Your task to perform on an android device: turn on data saver in the chrome app Image 0: 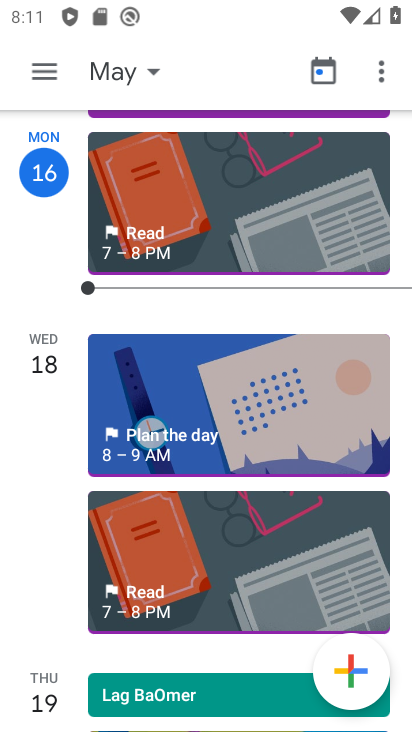
Step 0: press home button
Your task to perform on an android device: turn on data saver in the chrome app Image 1: 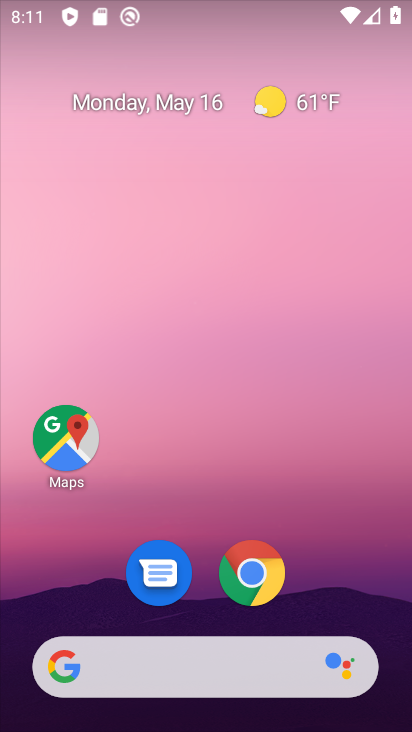
Step 1: click (258, 573)
Your task to perform on an android device: turn on data saver in the chrome app Image 2: 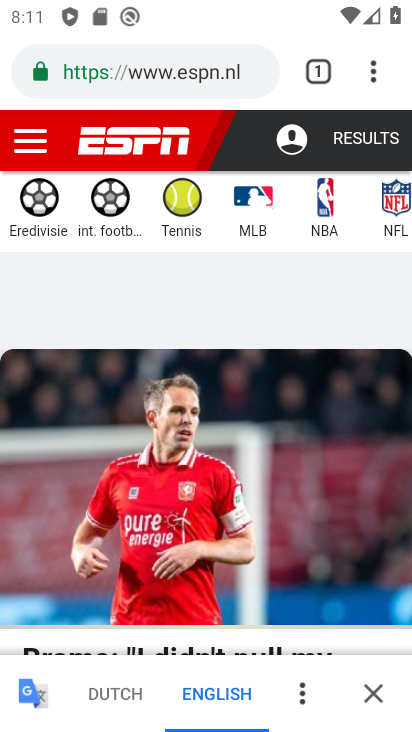
Step 2: click (375, 82)
Your task to perform on an android device: turn on data saver in the chrome app Image 3: 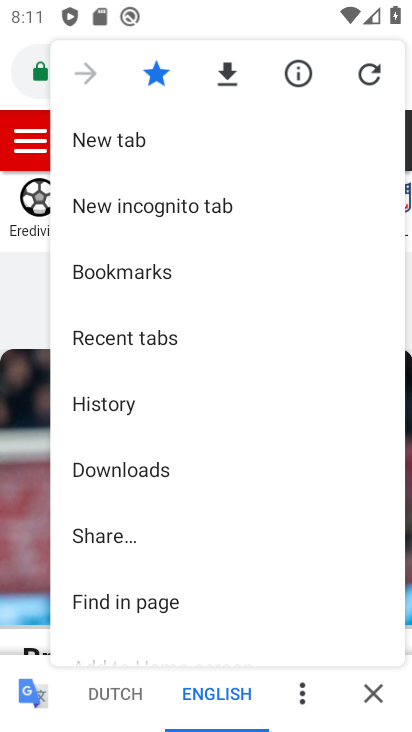
Step 3: drag from (137, 621) to (177, 313)
Your task to perform on an android device: turn on data saver in the chrome app Image 4: 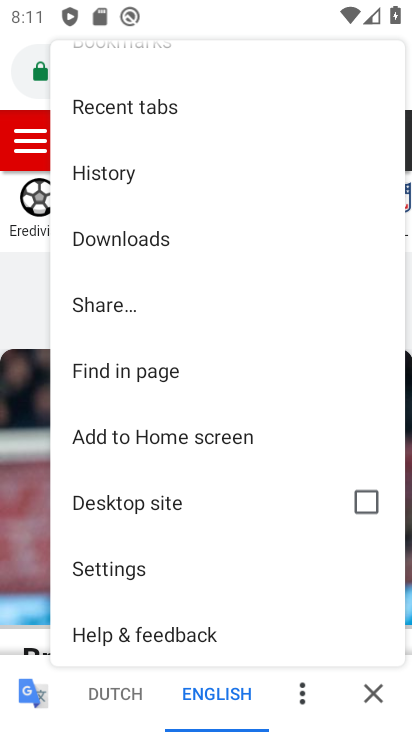
Step 4: click (129, 564)
Your task to perform on an android device: turn on data saver in the chrome app Image 5: 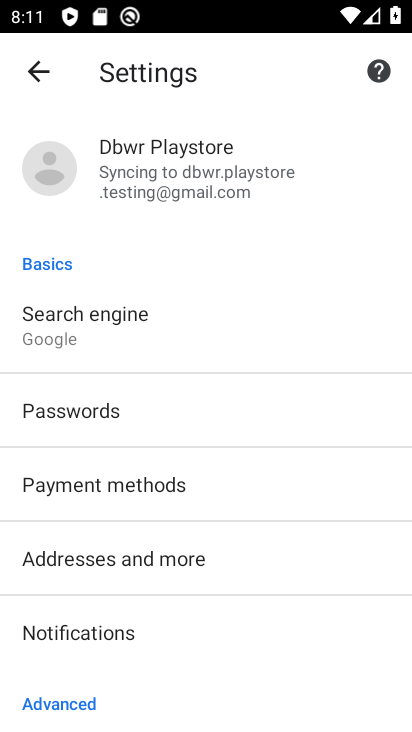
Step 5: drag from (133, 659) to (136, 319)
Your task to perform on an android device: turn on data saver in the chrome app Image 6: 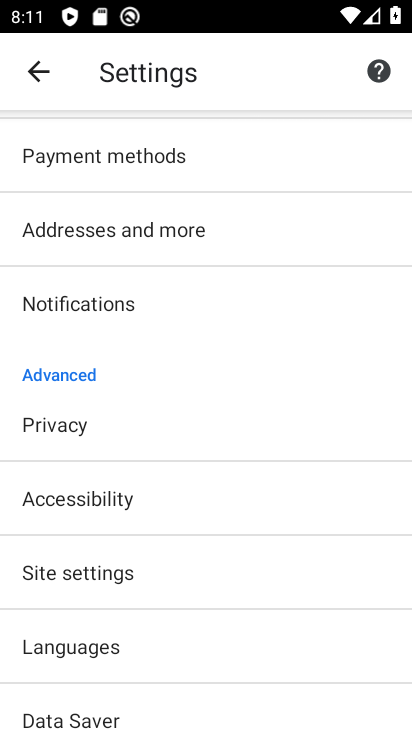
Step 6: click (85, 711)
Your task to perform on an android device: turn on data saver in the chrome app Image 7: 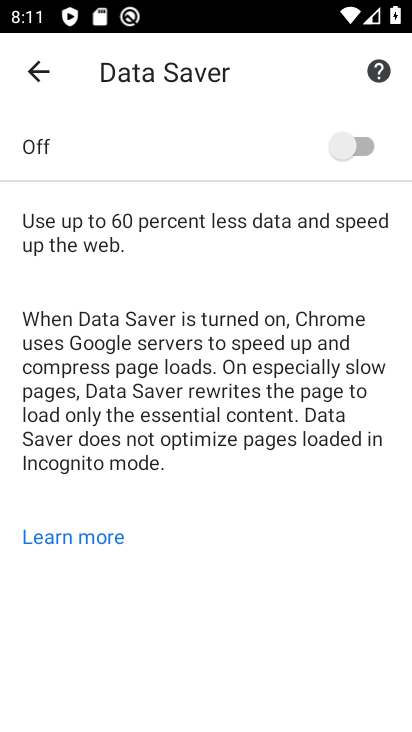
Step 7: click (379, 172)
Your task to perform on an android device: turn on data saver in the chrome app Image 8: 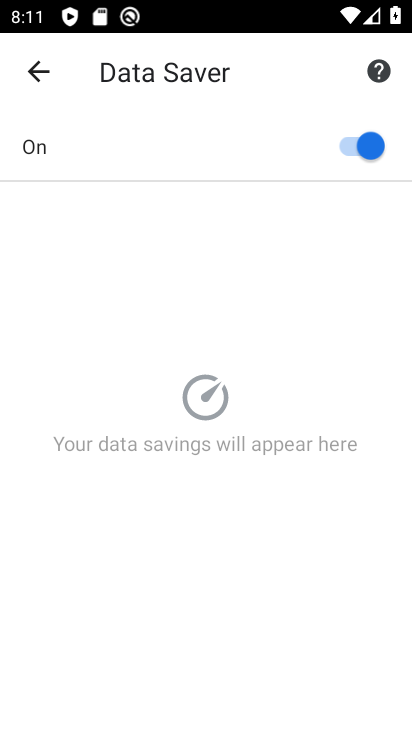
Step 8: task complete